Your task to perform on an android device: See recent photos Image 0: 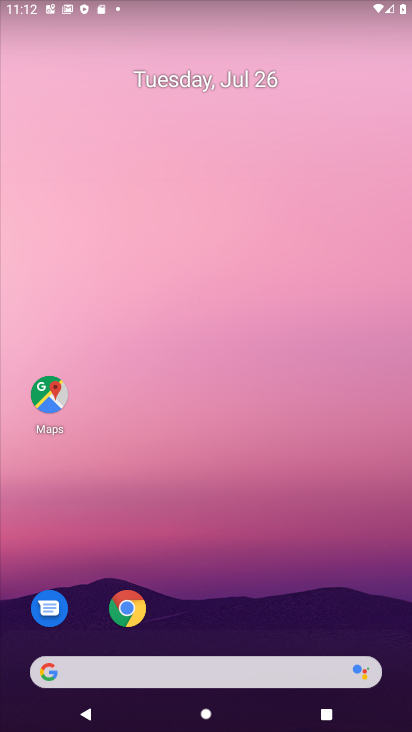
Step 0: drag from (232, 634) to (271, 89)
Your task to perform on an android device: See recent photos Image 1: 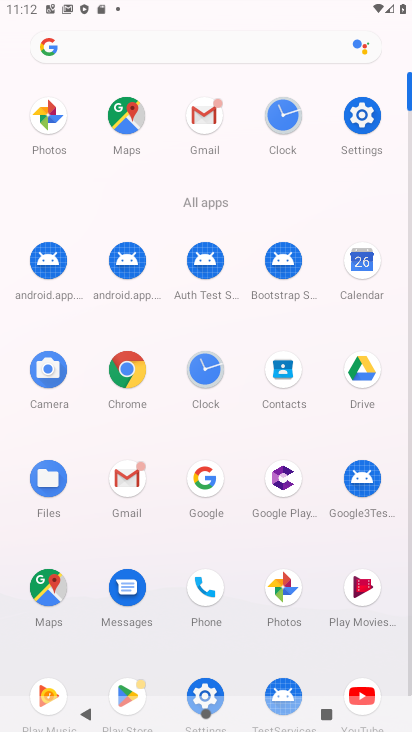
Step 1: click (57, 119)
Your task to perform on an android device: See recent photos Image 2: 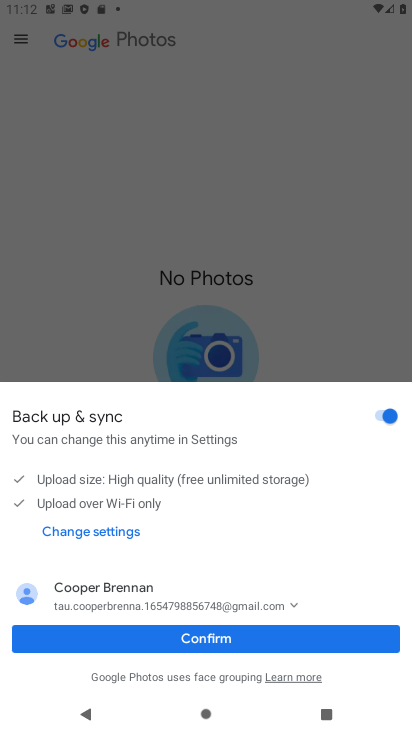
Step 2: click (253, 635)
Your task to perform on an android device: See recent photos Image 3: 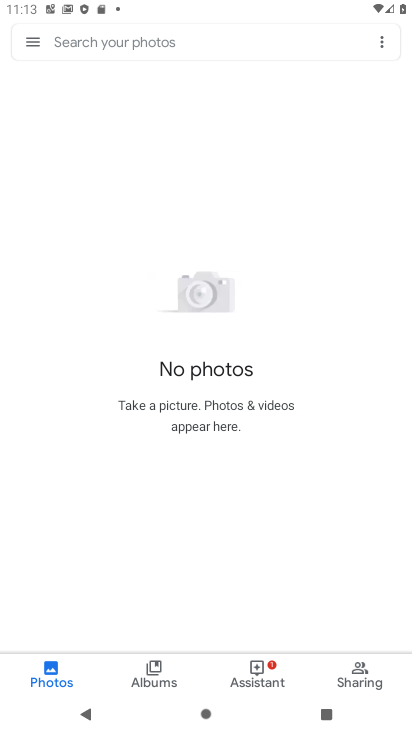
Step 3: task complete